Your task to perform on an android device: set the stopwatch Image 0: 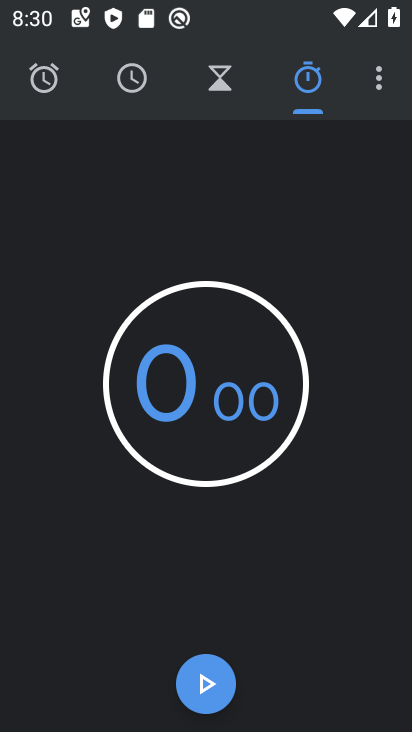
Step 0: press home button
Your task to perform on an android device: set the stopwatch Image 1: 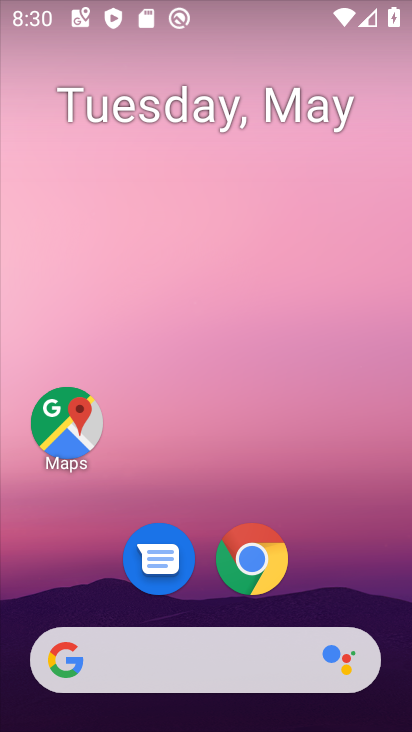
Step 1: drag from (203, 646) to (218, 243)
Your task to perform on an android device: set the stopwatch Image 2: 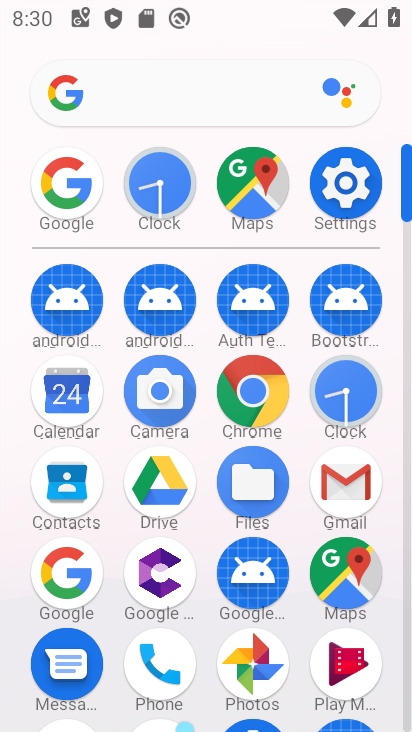
Step 2: click (339, 374)
Your task to perform on an android device: set the stopwatch Image 3: 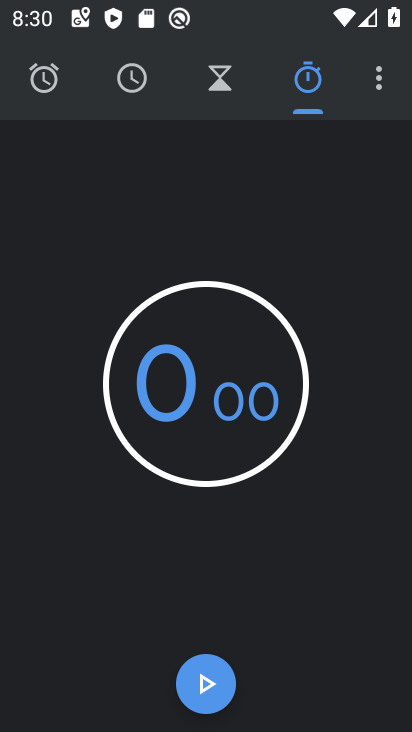
Step 3: click (312, 85)
Your task to perform on an android device: set the stopwatch Image 4: 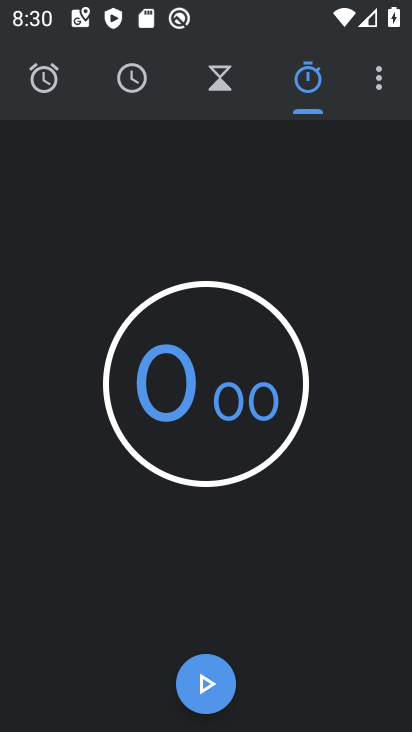
Step 4: task complete